Your task to perform on an android device: set the stopwatch Image 0: 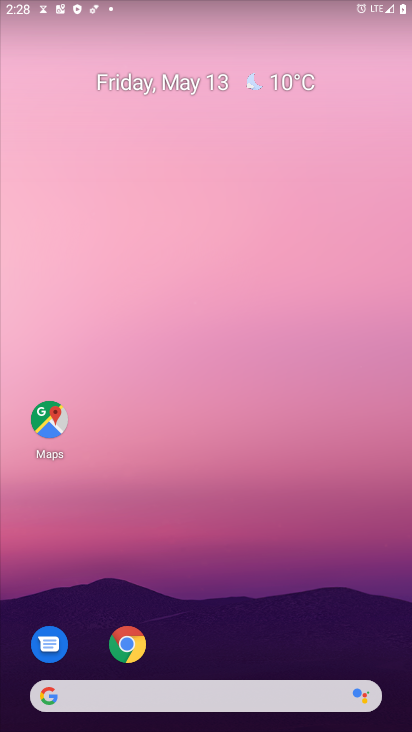
Step 0: drag from (230, 697) to (234, 273)
Your task to perform on an android device: set the stopwatch Image 1: 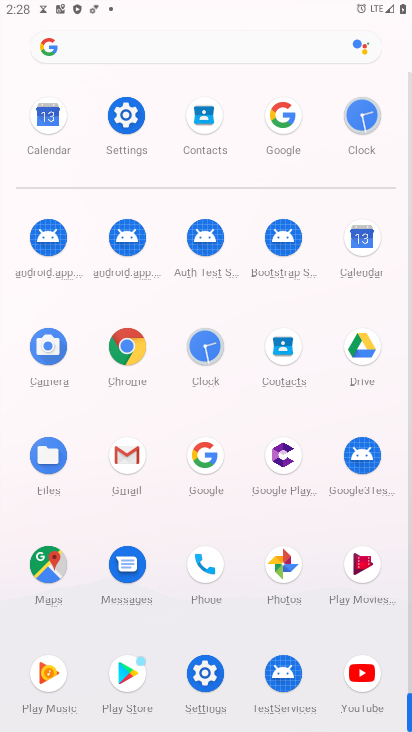
Step 1: click (208, 344)
Your task to perform on an android device: set the stopwatch Image 2: 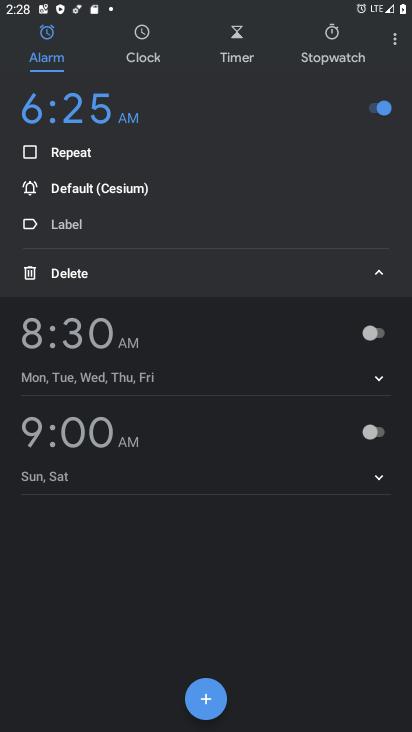
Step 2: click (332, 39)
Your task to perform on an android device: set the stopwatch Image 3: 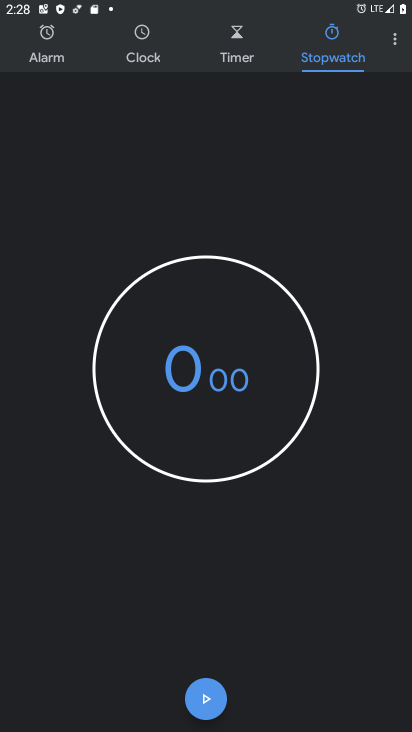
Step 3: click (197, 351)
Your task to perform on an android device: set the stopwatch Image 4: 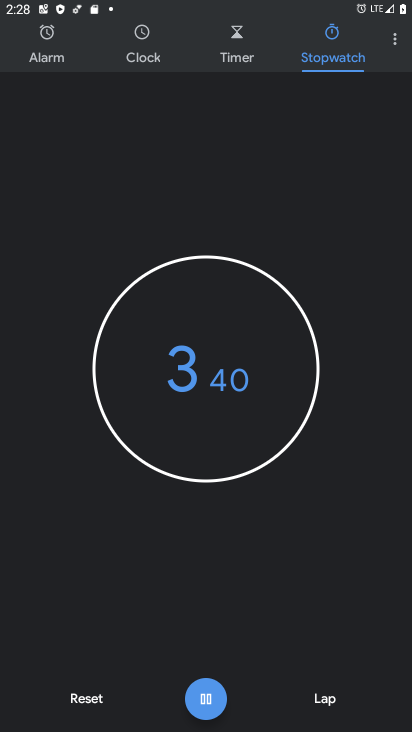
Step 4: type "666"
Your task to perform on an android device: set the stopwatch Image 5: 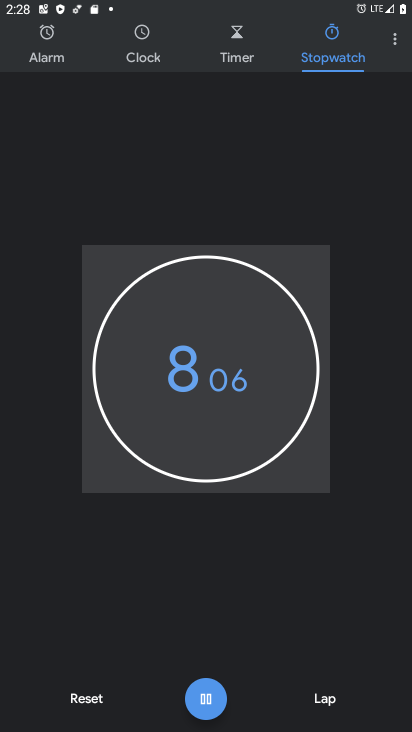
Step 5: task complete